Your task to perform on an android device: Open the phone app and click the voicemail tab. Image 0: 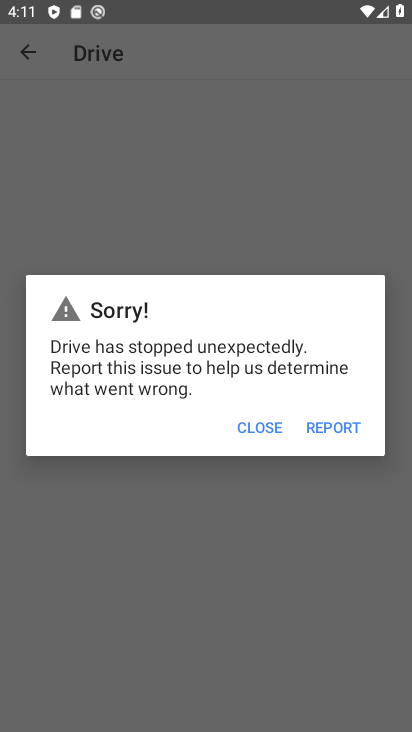
Step 0: press home button
Your task to perform on an android device: Open the phone app and click the voicemail tab. Image 1: 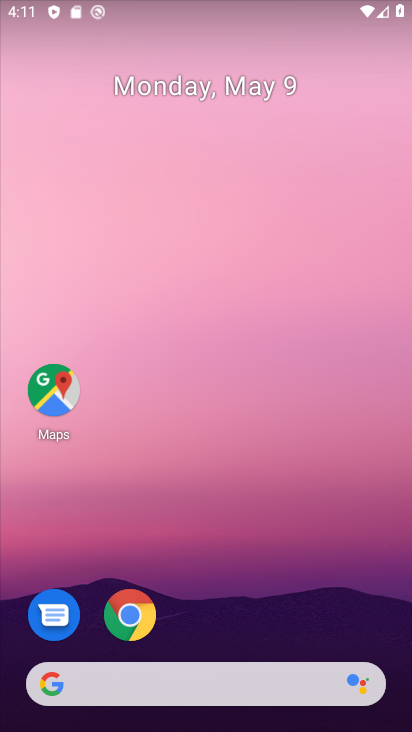
Step 1: drag from (213, 651) to (264, 239)
Your task to perform on an android device: Open the phone app and click the voicemail tab. Image 2: 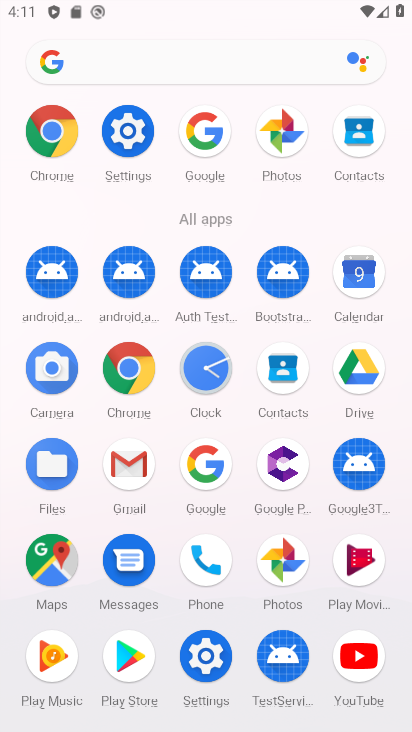
Step 2: click (204, 559)
Your task to perform on an android device: Open the phone app and click the voicemail tab. Image 3: 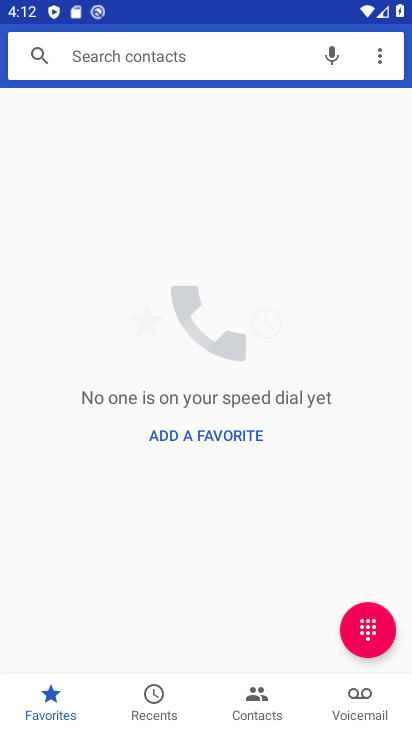
Step 3: click (361, 702)
Your task to perform on an android device: Open the phone app and click the voicemail tab. Image 4: 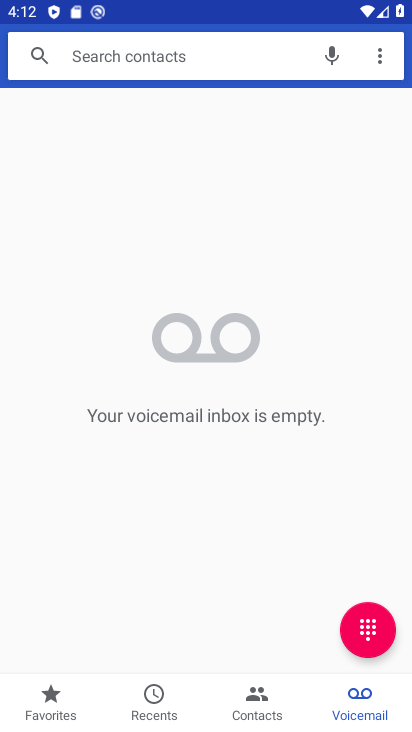
Step 4: task complete